Your task to perform on an android device: Open network settings Image 0: 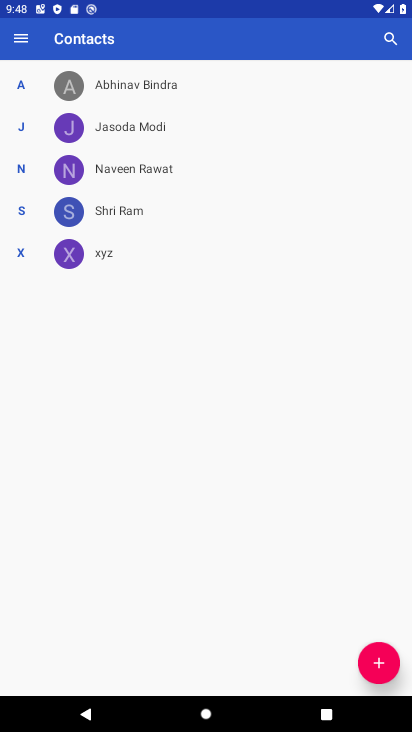
Step 0: press home button
Your task to perform on an android device: Open network settings Image 1: 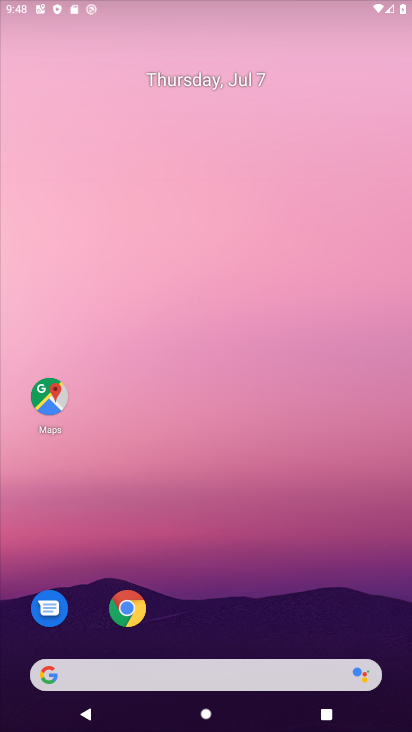
Step 1: drag from (219, 637) to (310, 110)
Your task to perform on an android device: Open network settings Image 2: 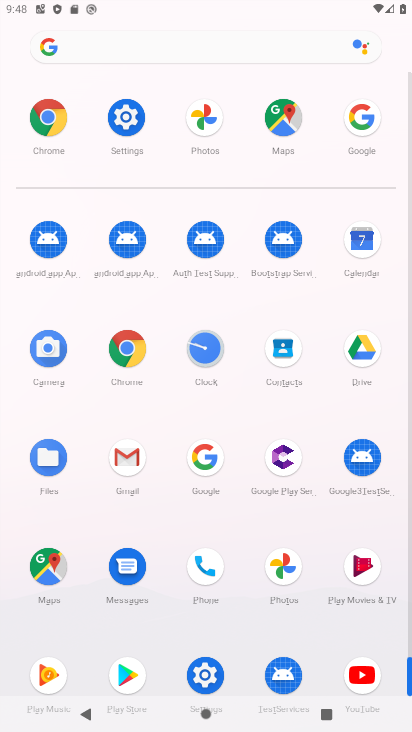
Step 2: click (129, 117)
Your task to perform on an android device: Open network settings Image 3: 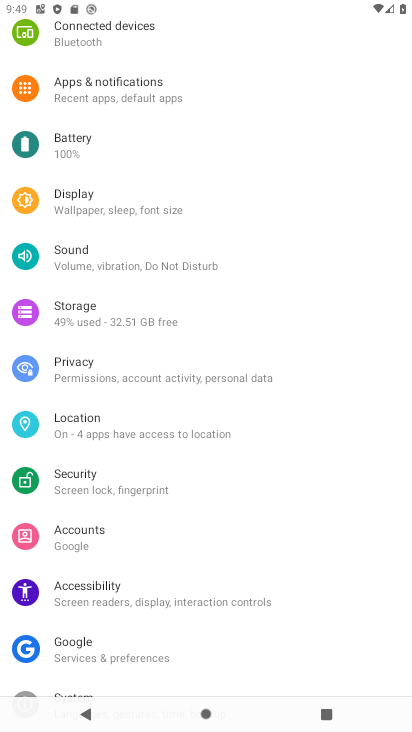
Step 3: drag from (155, 165) to (193, 518)
Your task to perform on an android device: Open network settings Image 4: 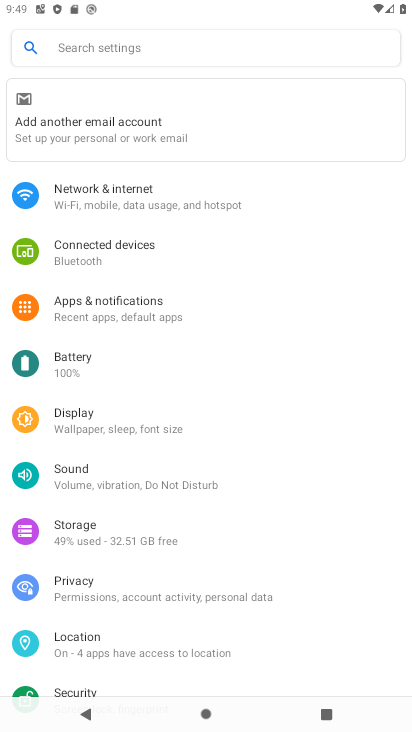
Step 4: click (122, 205)
Your task to perform on an android device: Open network settings Image 5: 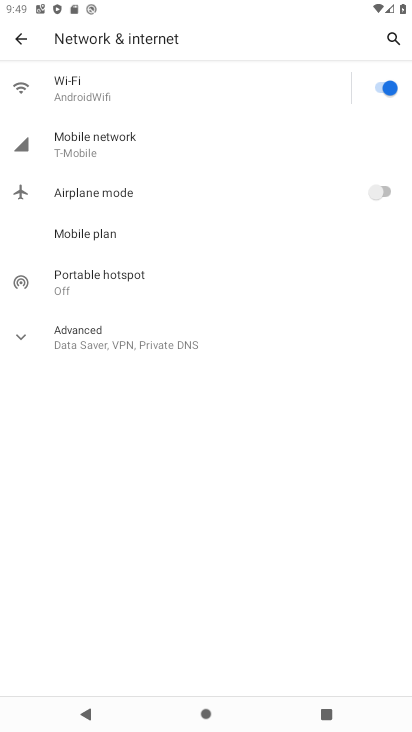
Step 5: click (113, 140)
Your task to perform on an android device: Open network settings Image 6: 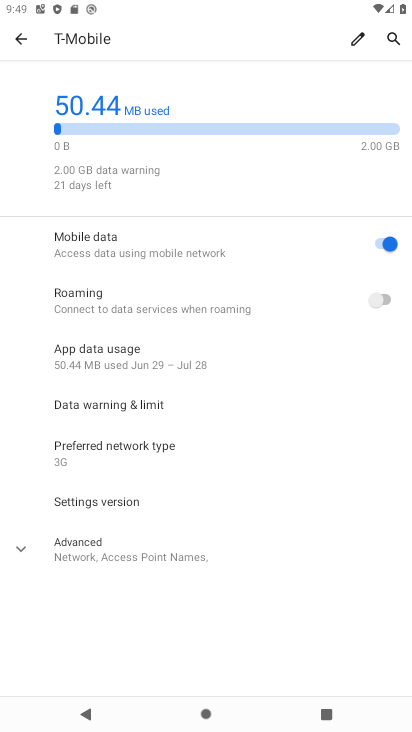
Step 6: task complete